Your task to perform on an android device: Check the news Image 0: 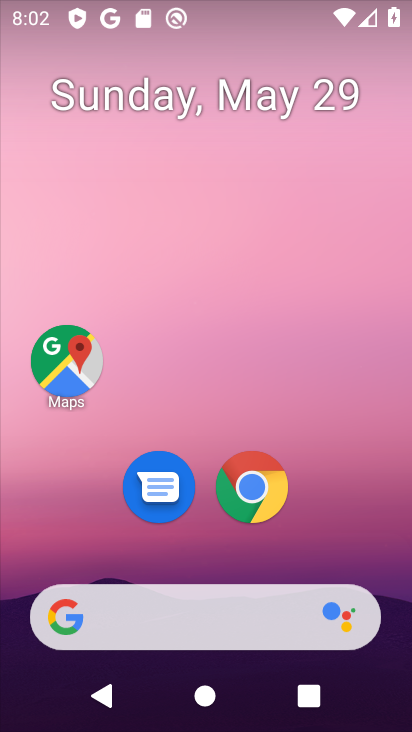
Step 0: drag from (347, 513) to (217, 59)
Your task to perform on an android device: Check the news Image 1: 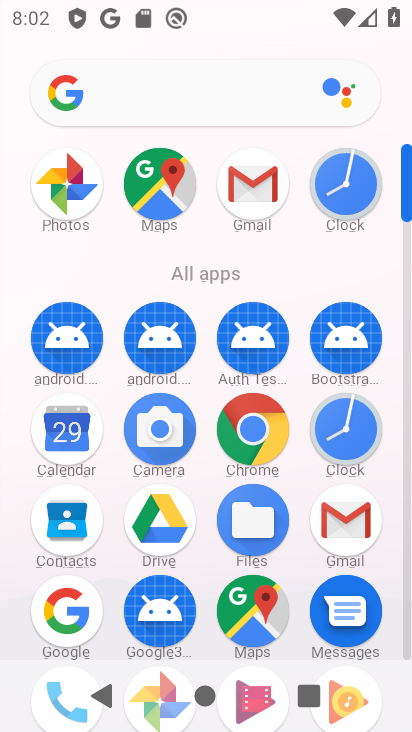
Step 1: click (60, 610)
Your task to perform on an android device: Check the news Image 2: 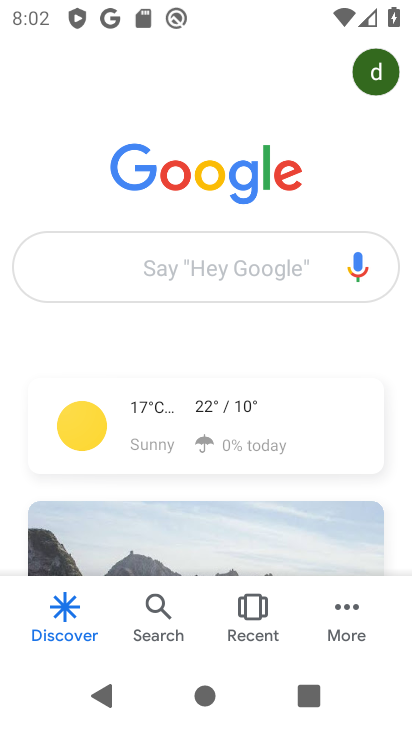
Step 2: click (184, 254)
Your task to perform on an android device: Check the news Image 3: 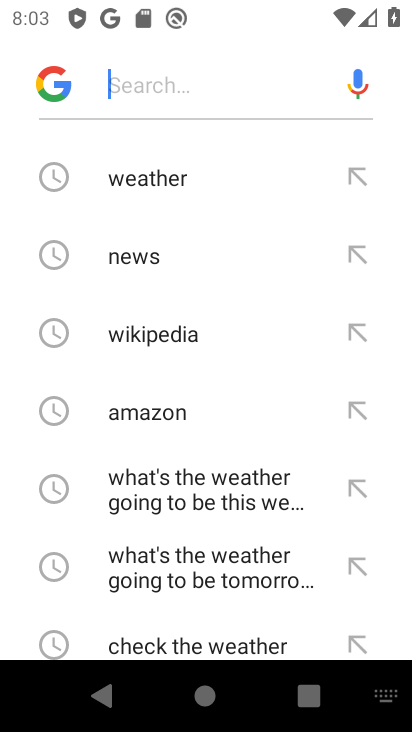
Step 3: type "news"
Your task to perform on an android device: Check the news Image 4: 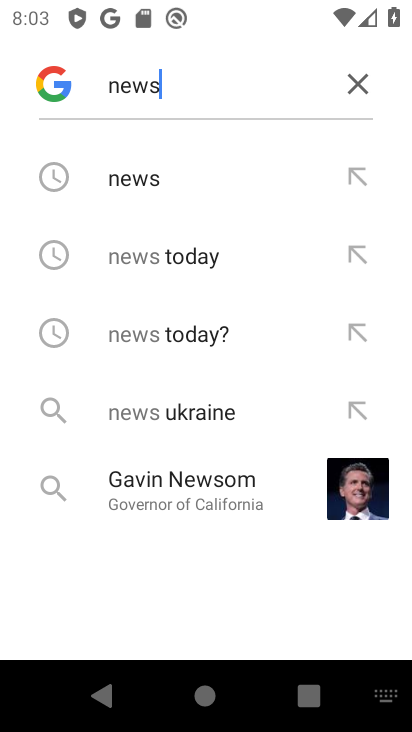
Step 4: click (142, 183)
Your task to perform on an android device: Check the news Image 5: 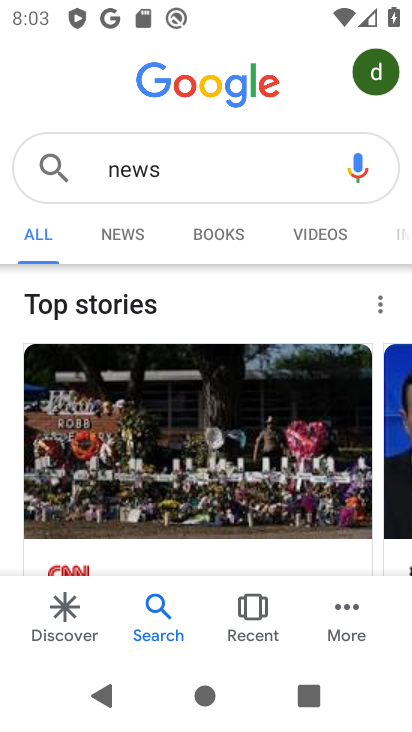
Step 5: task complete